Your task to perform on an android device: toggle sleep mode Image 0: 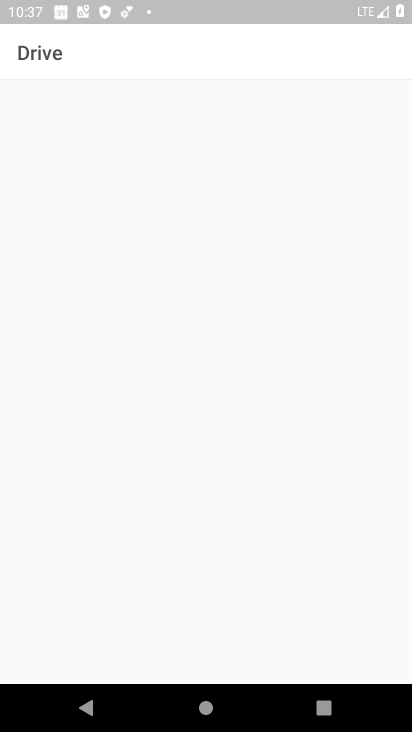
Step 0: press home button
Your task to perform on an android device: toggle sleep mode Image 1: 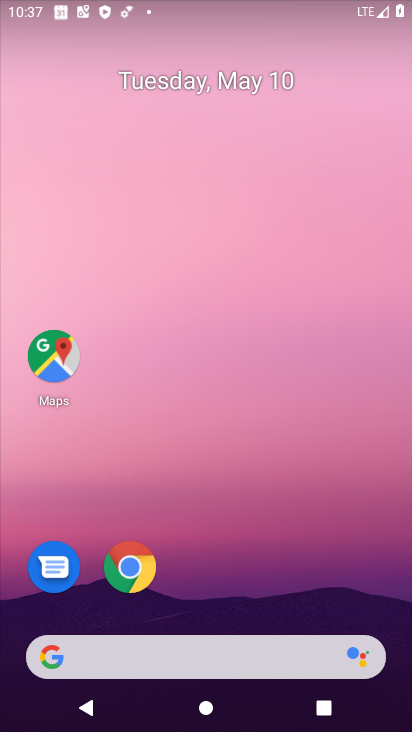
Step 1: drag from (36, 702) to (273, 254)
Your task to perform on an android device: toggle sleep mode Image 2: 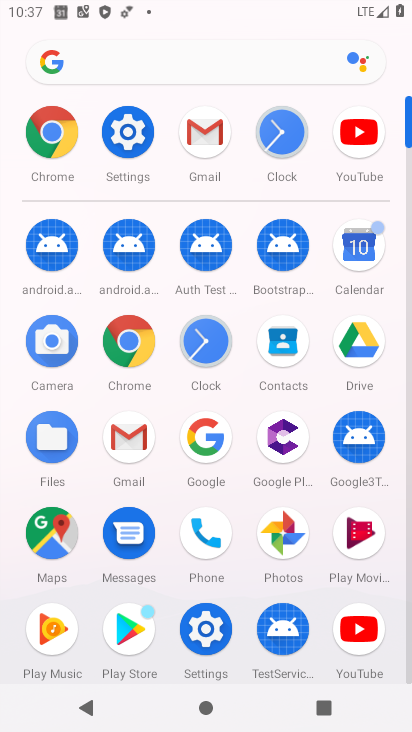
Step 2: click (215, 618)
Your task to perform on an android device: toggle sleep mode Image 3: 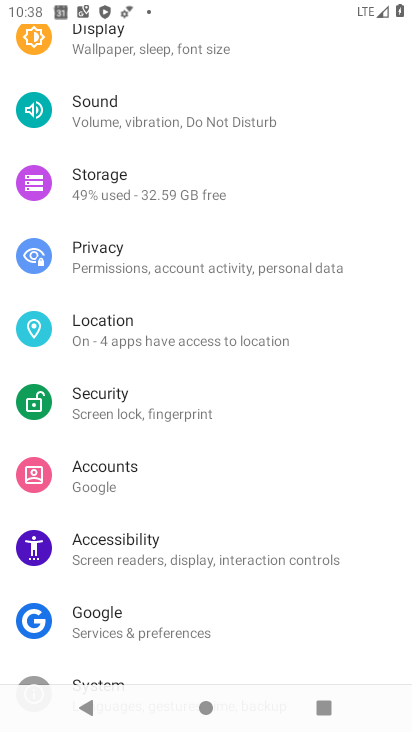
Step 3: task complete